Your task to perform on an android device: turn off data saver in the chrome app Image 0: 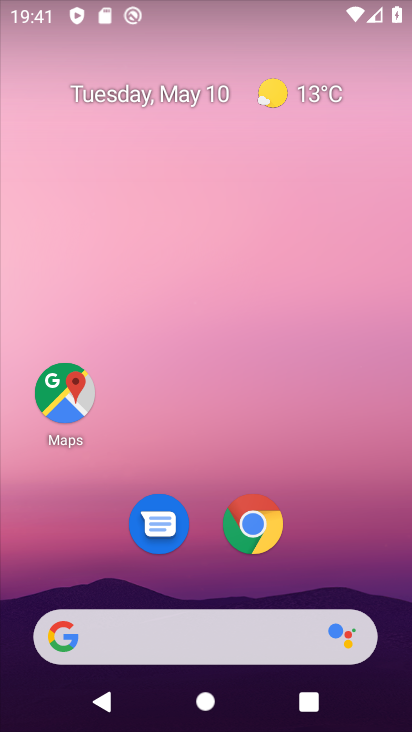
Step 0: click (254, 528)
Your task to perform on an android device: turn off data saver in the chrome app Image 1: 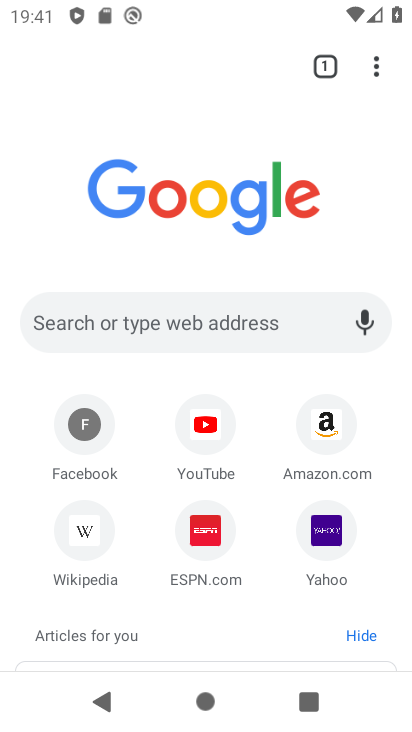
Step 1: click (378, 68)
Your task to perform on an android device: turn off data saver in the chrome app Image 2: 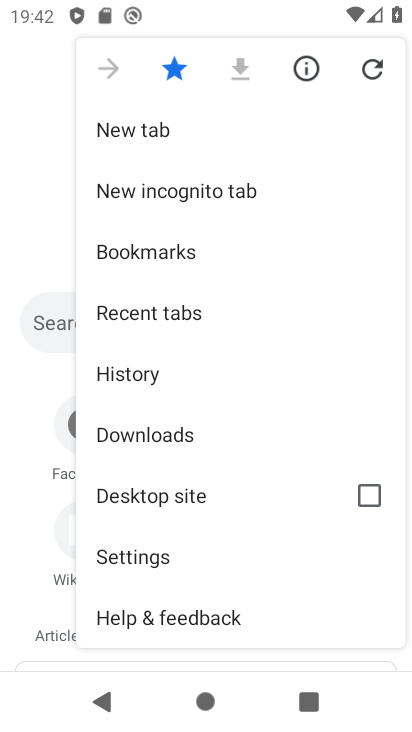
Step 2: click (149, 550)
Your task to perform on an android device: turn off data saver in the chrome app Image 3: 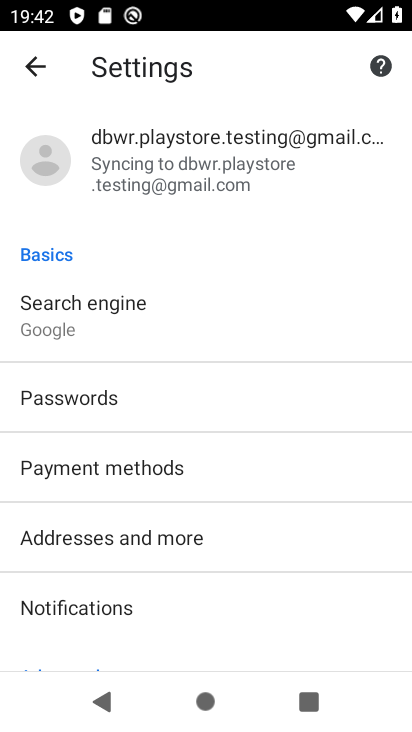
Step 3: drag from (149, 550) to (171, 153)
Your task to perform on an android device: turn off data saver in the chrome app Image 4: 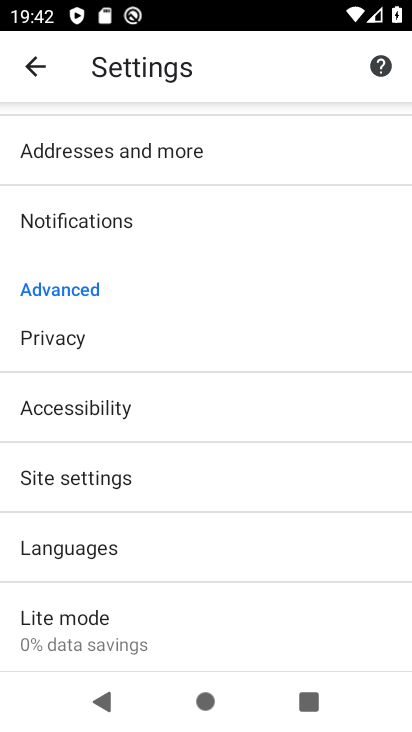
Step 4: click (129, 632)
Your task to perform on an android device: turn off data saver in the chrome app Image 5: 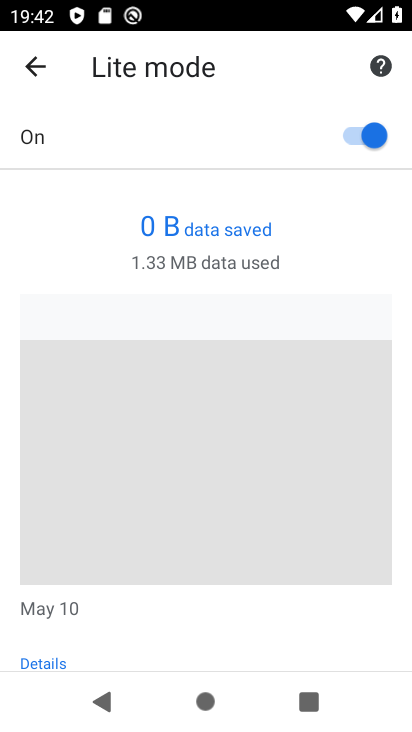
Step 5: click (362, 138)
Your task to perform on an android device: turn off data saver in the chrome app Image 6: 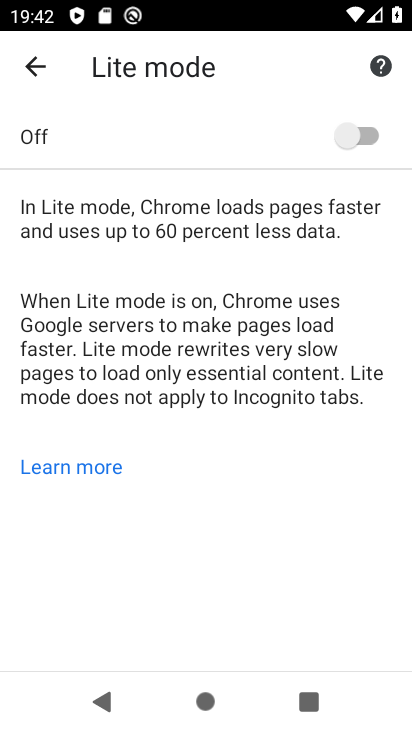
Step 6: task complete